Your task to perform on an android device: empty trash in the gmail app Image 0: 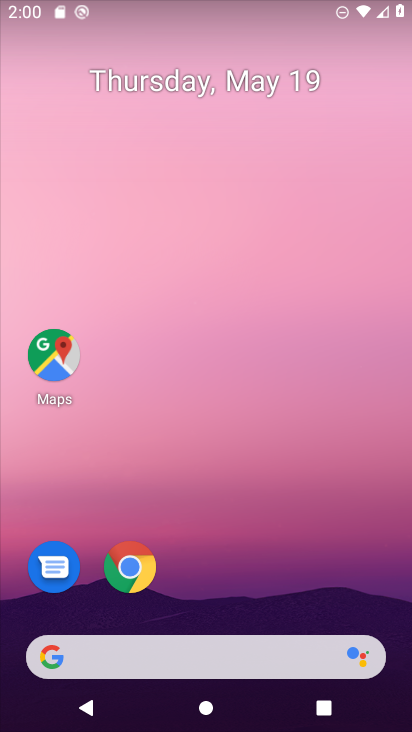
Step 0: drag from (297, 579) to (266, 44)
Your task to perform on an android device: empty trash in the gmail app Image 1: 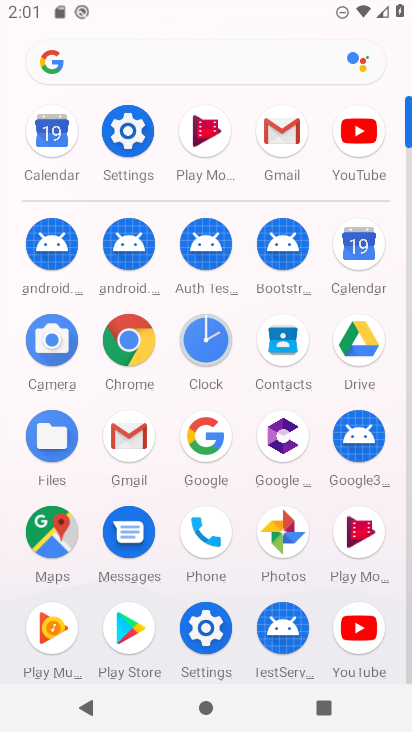
Step 1: click (270, 129)
Your task to perform on an android device: empty trash in the gmail app Image 2: 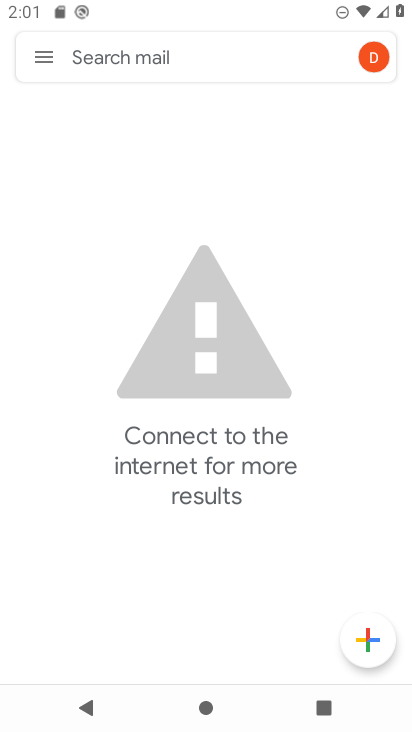
Step 2: click (49, 59)
Your task to perform on an android device: empty trash in the gmail app Image 3: 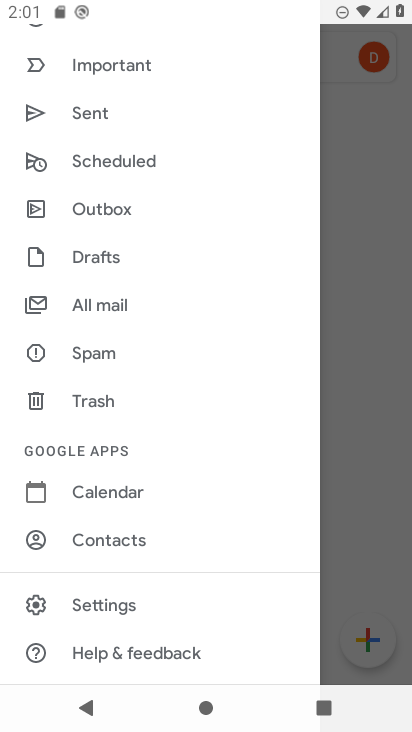
Step 3: click (97, 390)
Your task to perform on an android device: empty trash in the gmail app Image 4: 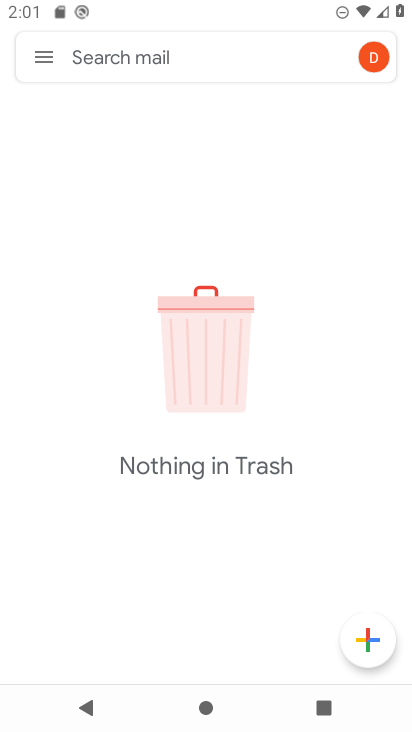
Step 4: task complete